Your task to perform on an android device: add a contact Image 0: 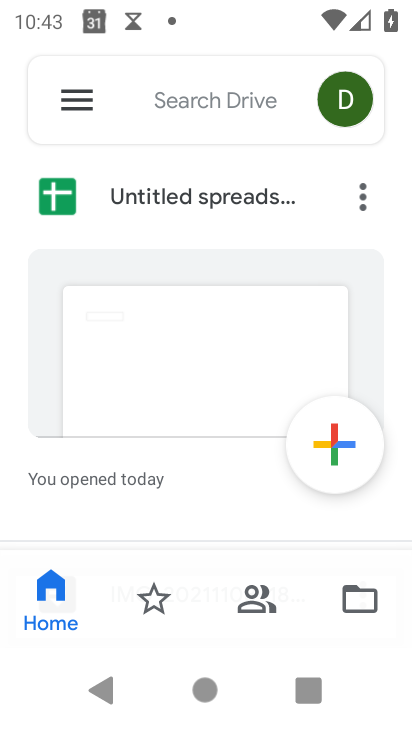
Step 0: press home button
Your task to perform on an android device: add a contact Image 1: 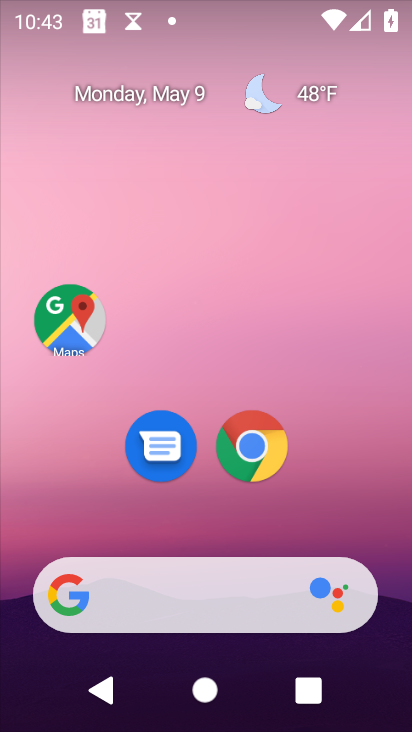
Step 1: drag from (327, 504) to (331, 54)
Your task to perform on an android device: add a contact Image 2: 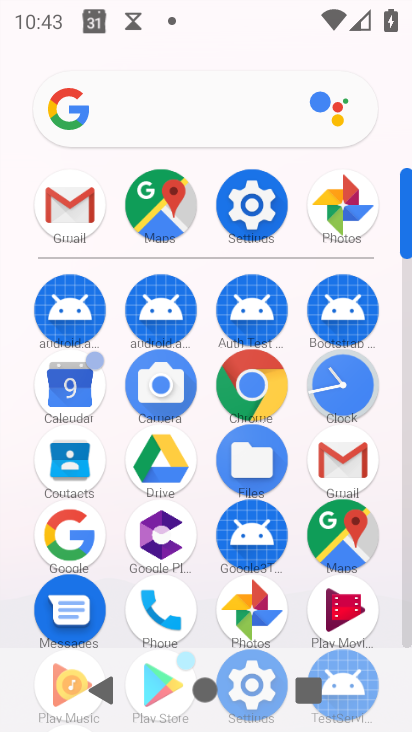
Step 2: click (64, 471)
Your task to perform on an android device: add a contact Image 3: 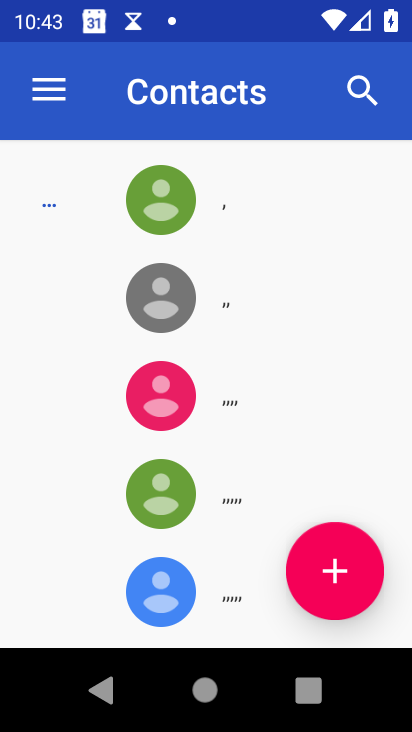
Step 3: click (370, 580)
Your task to perform on an android device: add a contact Image 4: 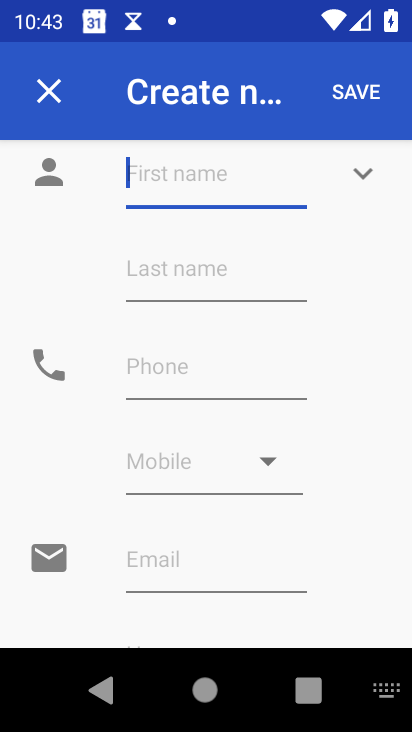
Step 4: click (221, 169)
Your task to perform on an android device: add a contact Image 5: 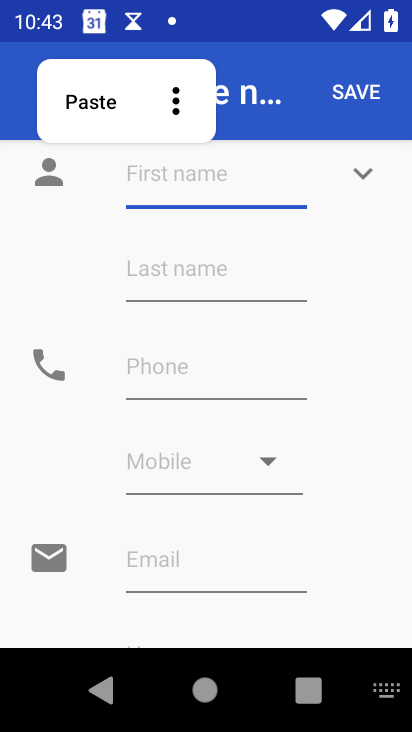
Step 5: type "yjhgeger"
Your task to perform on an android device: add a contact Image 6: 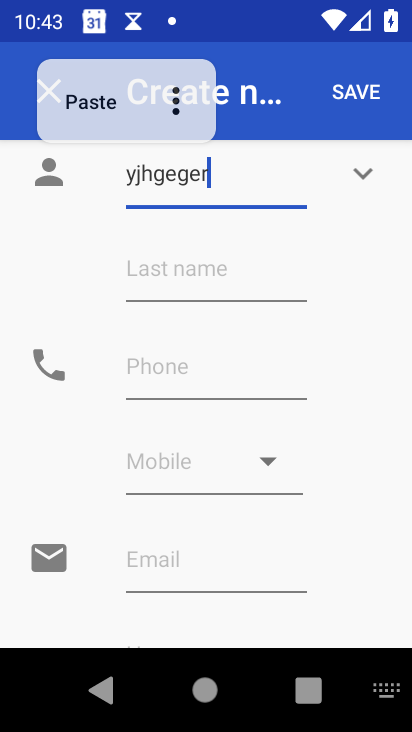
Step 6: type ""
Your task to perform on an android device: add a contact Image 7: 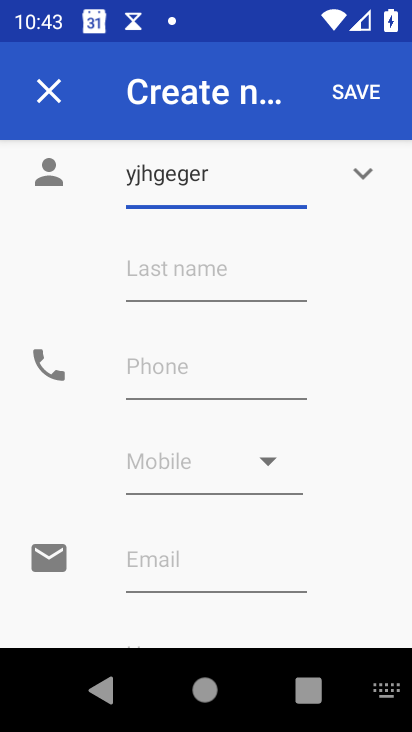
Step 7: click (187, 378)
Your task to perform on an android device: add a contact Image 8: 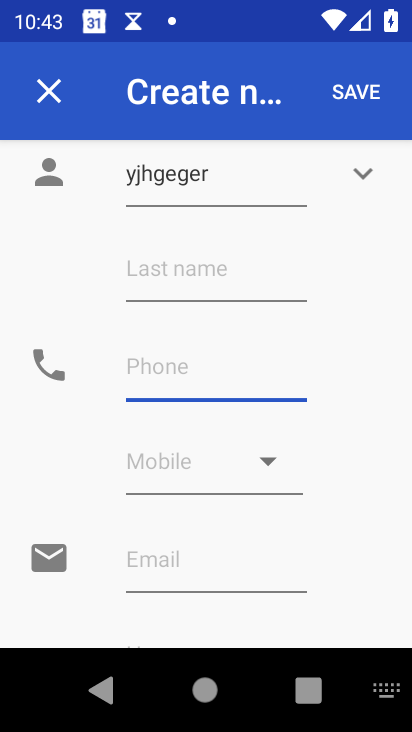
Step 8: type "43245464564"
Your task to perform on an android device: add a contact Image 9: 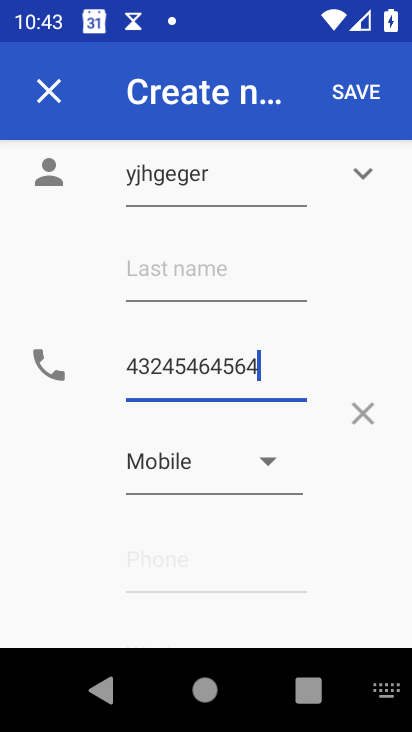
Step 9: type ""
Your task to perform on an android device: add a contact Image 10: 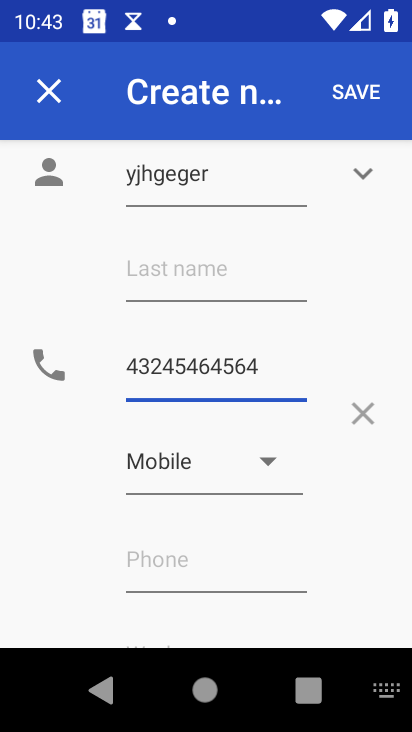
Step 10: click (378, 88)
Your task to perform on an android device: add a contact Image 11: 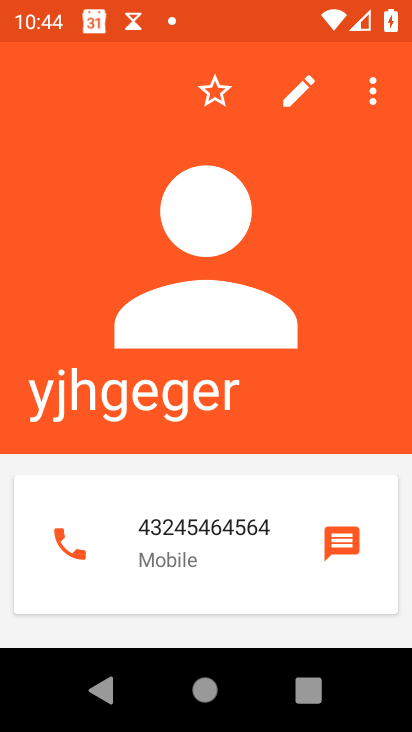
Step 11: task complete